Your task to perform on an android device: Open Youtube and go to the subscriptions tab Image 0: 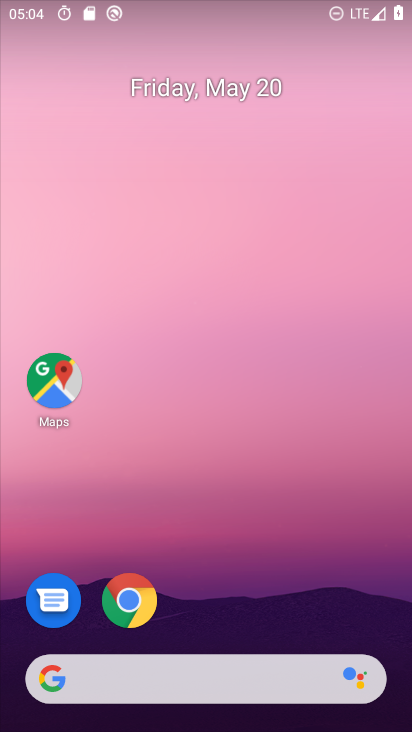
Step 0: drag from (255, 591) to (279, 21)
Your task to perform on an android device: Open Youtube and go to the subscriptions tab Image 1: 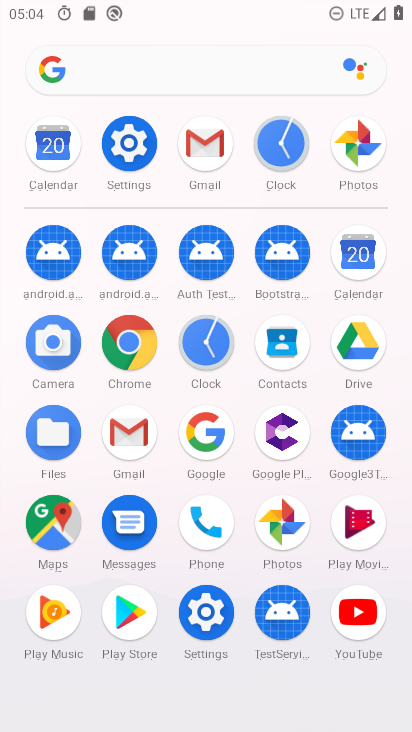
Step 1: click (359, 614)
Your task to perform on an android device: Open Youtube and go to the subscriptions tab Image 2: 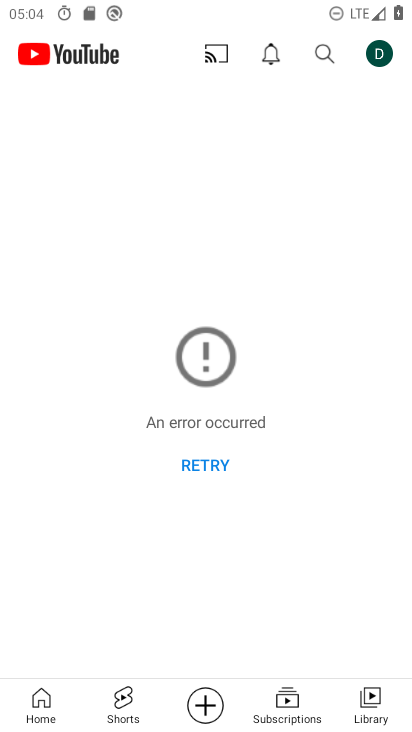
Step 2: click (289, 713)
Your task to perform on an android device: Open Youtube and go to the subscriptions tab Image 3: 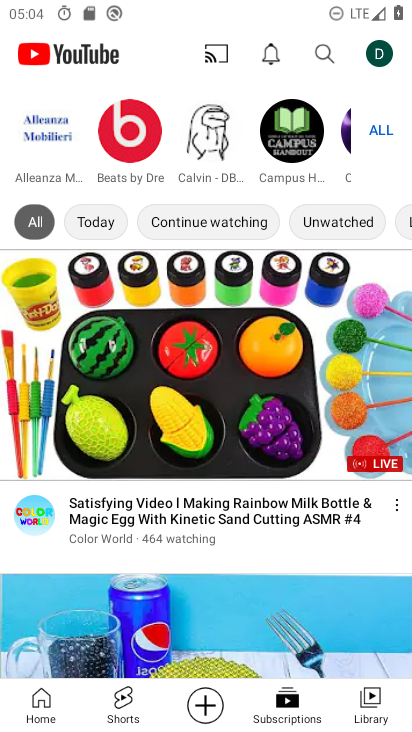
Step 3: task complete